Your task to perform on an android device: Open Maps and search for coffee Image 0: 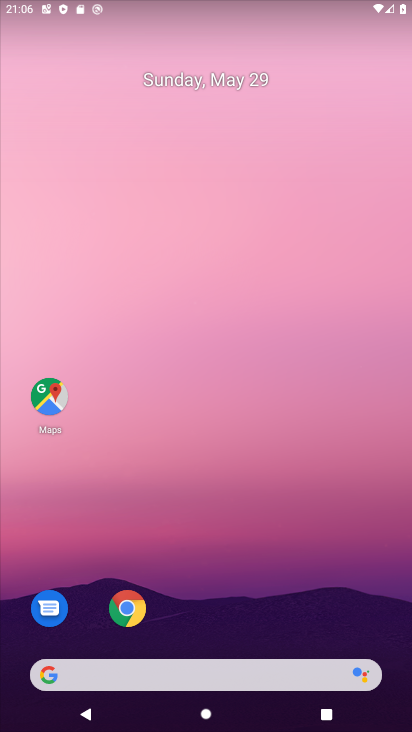
Step 0: drag from (385, 621) to (389, 271)
Your task to perform on an android device: Open Maps and search for coffee Image 1: 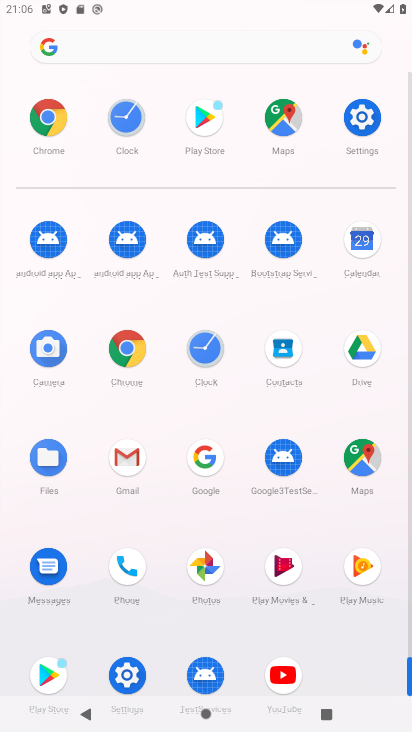
Step 1: click (359, 452)
Your task to perform on an android device: Open Maps and search for coffee Image 2: 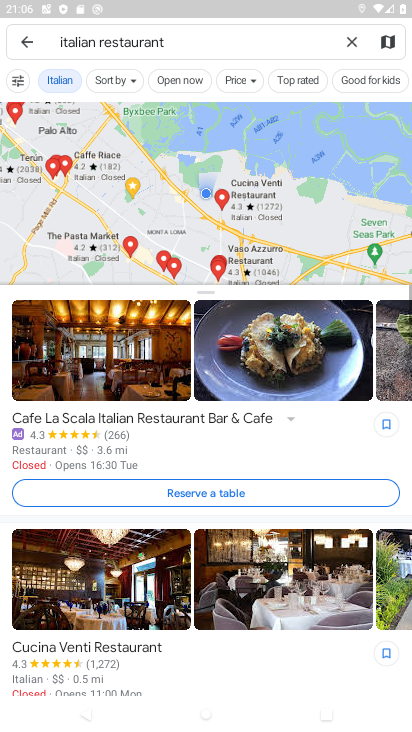
Step 2: click (351, 42)
Your task to perform on an android device: Open Maps and search for coffee Image 3: 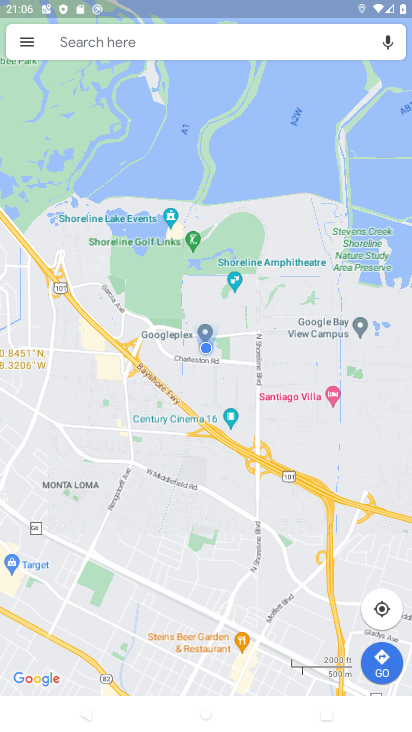
Step 3: click (222, 43)
Your task to perform on an android device: Open Maps and search for coffee Image 4: 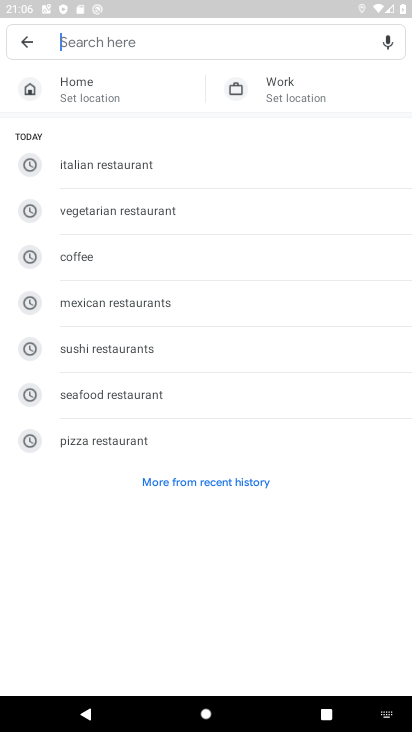
Step 4: type "coffee"
Your task to perform on an android device: Open Maps and search for coffee Image 5: 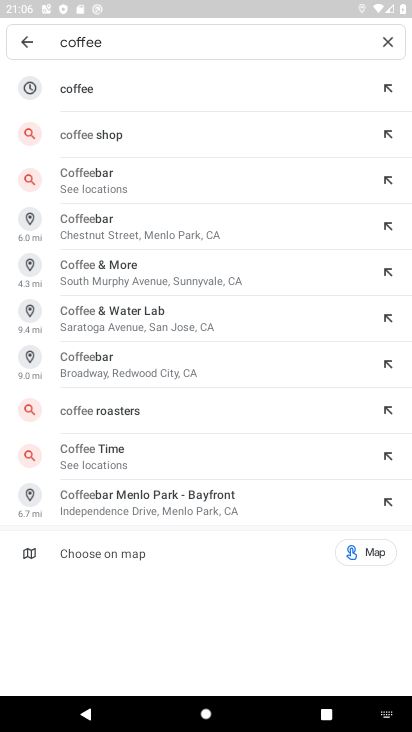
Step 5: click (238, 102)
Your task to perform on an android device: Open Maps and search for coffee Image 6: 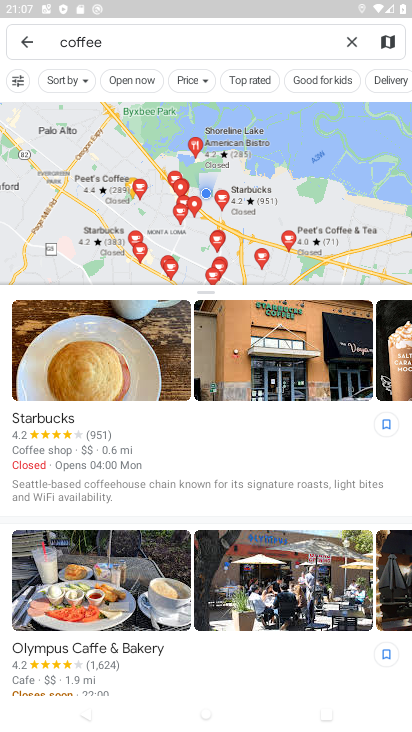
Step 6: task complete